Your task to perform on an android device: Show me popular games on the Play Store Image 0: 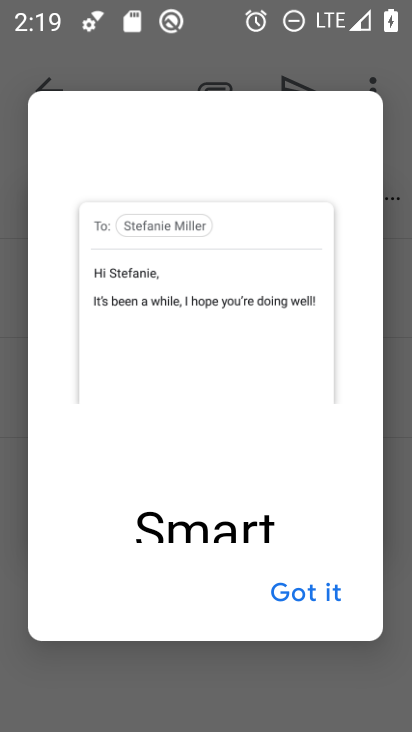
Step 0: press home button
Your task to perform on an android device: Show me popular games on the Play Store Image 1: 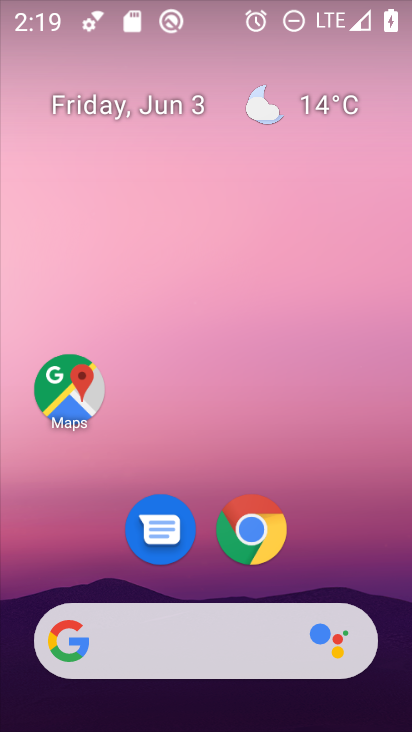
Step 1: drag from (363, 579) to (384, 170)
Your task to perform on an android device: Show me popular games on the Play Store Image 2: 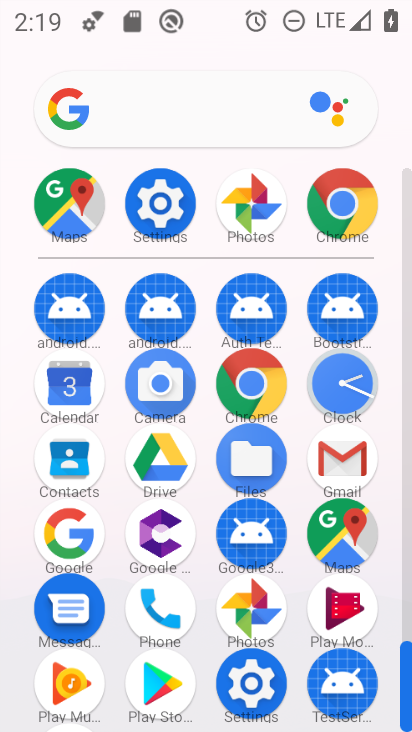
Step 2: click (159, 684)
Your task to perform on an android device: Show me popular games on the Play Store Image 3: 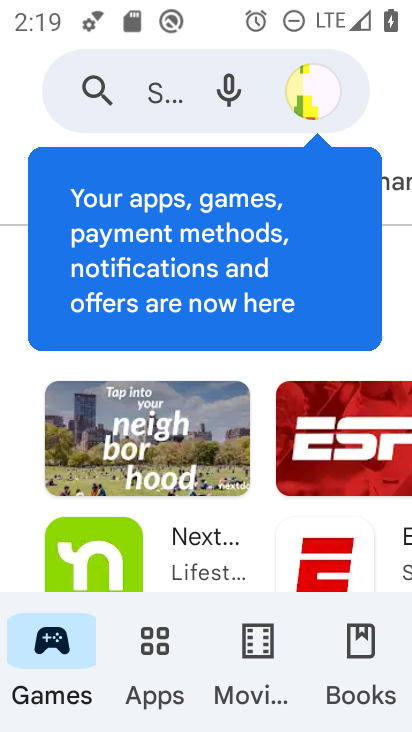
Step 3: task complete